Your task to perform on an android device: Show me the alarms in the clock app Image 0: 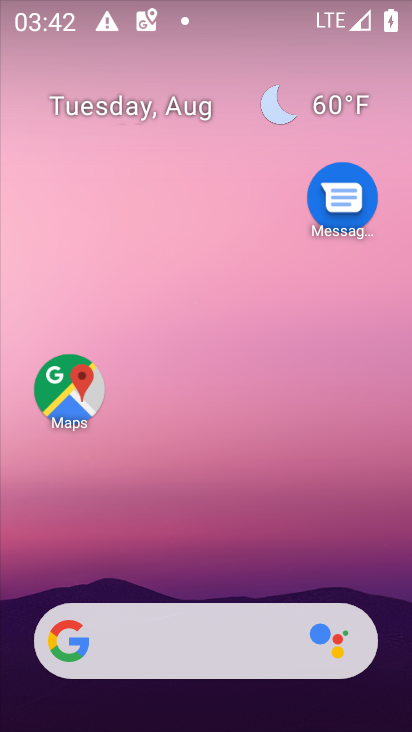
Step 0: drag from (242, 416) to (268, 49)
Your task to perform on an android device: Show me the alarms in the clock app Image 1: 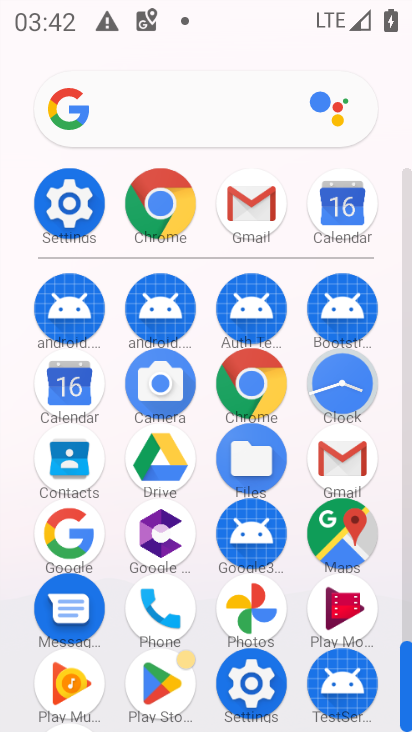
Step 1: click (349, 401)
Your task to perform on an android device: Show me the alarms in the clock app Image 2: 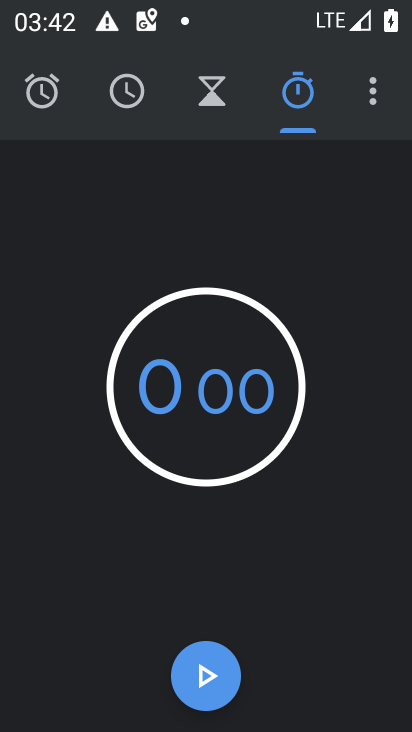
Step 2: press home button
Your task to perform on an android device: Show me the alarms in the clock app Image 3: 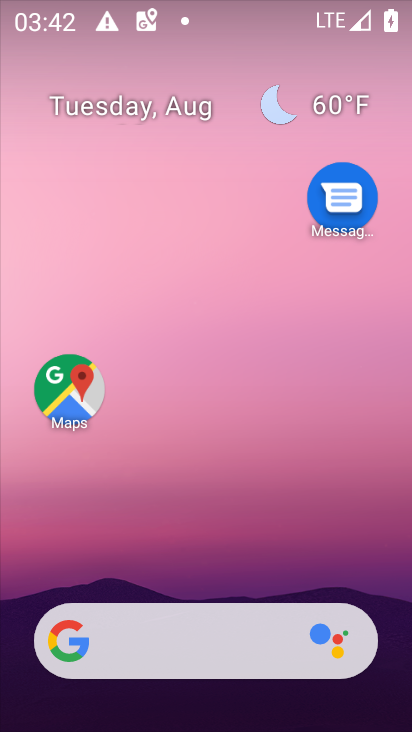
Step 3: drag from (181, 586) to (97, 10)
Your task to perform on an android device: Show me the alarms in the clock app Image 4: 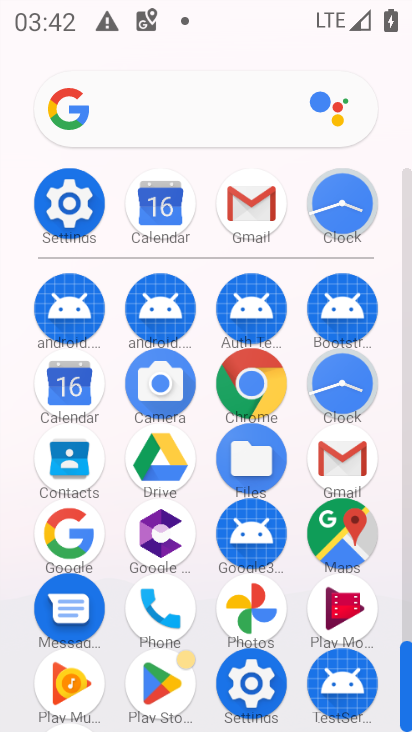
Step 4: click (350, 216)
Your task to perform on an android device: Show me the alarms in the clock app Image 5: 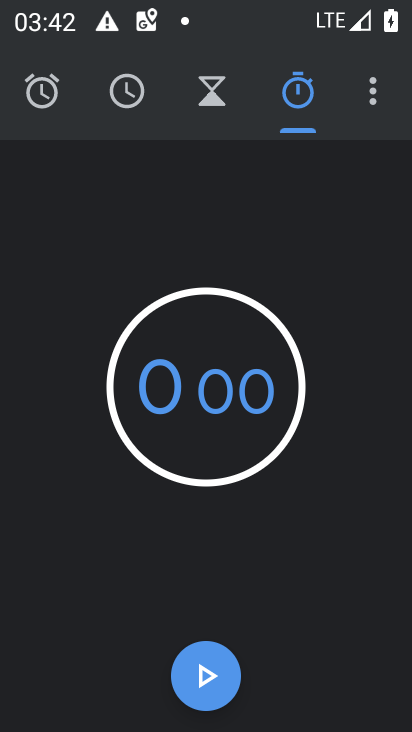
Step 5: click (53, 115)
Your task to perform on an android device: Show me the alarms in the clock app Image 6: 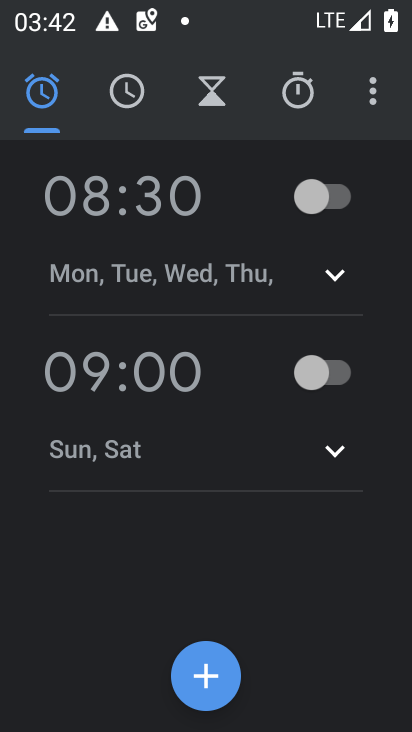
Step 6: click (317, 187)
Your task to perform on an android device: Show me the alarms in the clock app Image 7: 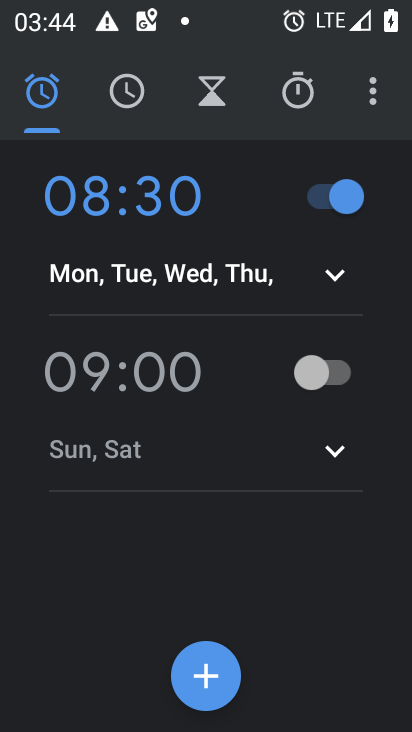
Step 7: task complete